Your task to perform on an android device: turn on location history Image 0: 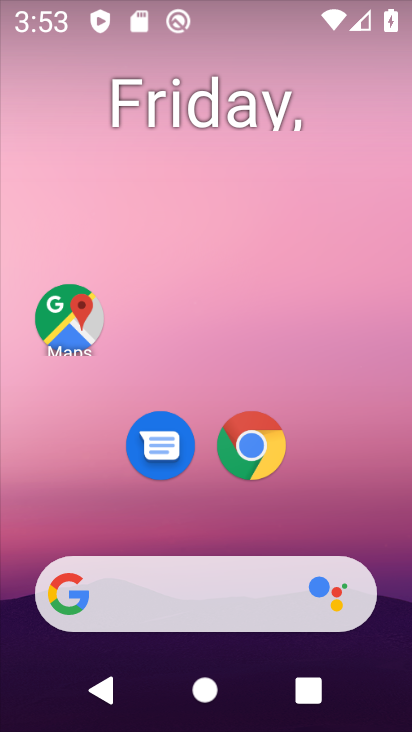
Step 0: press home button
Your task to perform on an android device: turn on location history Image 1: 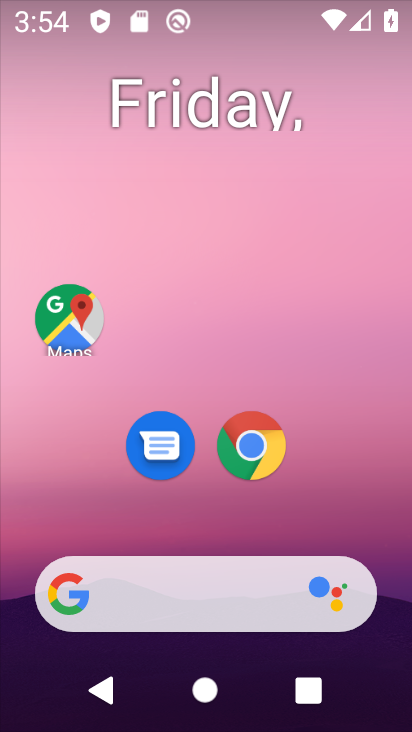
Step 1: drag from (366, 416) to (346, 185)
Your task to perform on an android device: turn on location history Image 2: 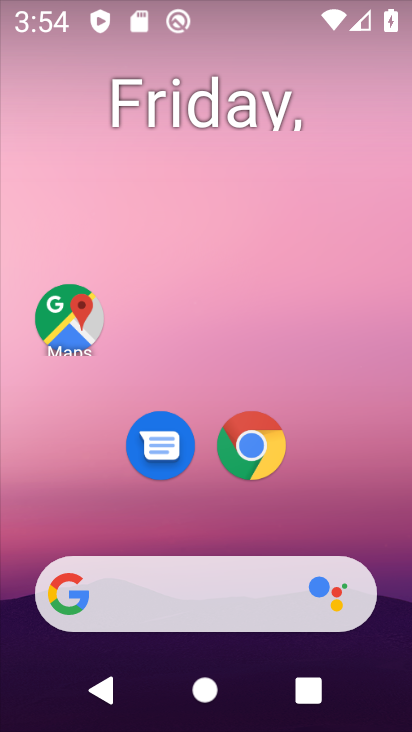
Step 2: drag from (243, 518) to (243, 202)
Your task to perform on an android device: turn on location history Image 3: 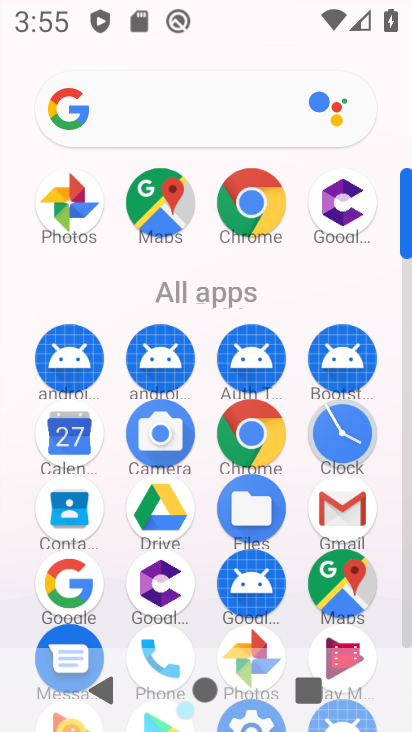
Step 3: drag from (402, 545) to (406, 255)
Your task to perform on an android device: turn on location history Image 4: 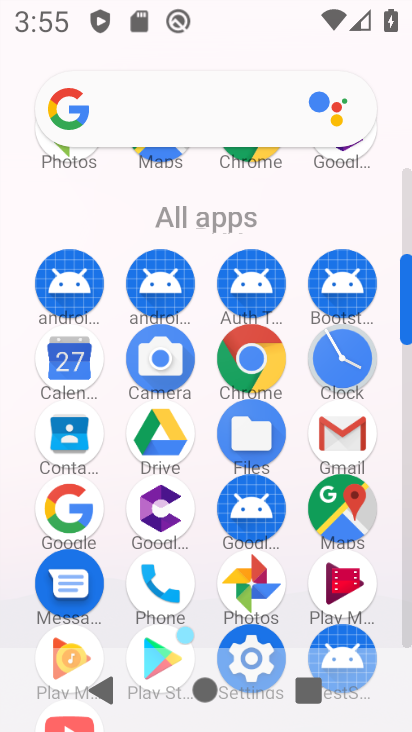
Step 4: click (254, 662)
Your task to perform on an android device: turn on location history Image 5: 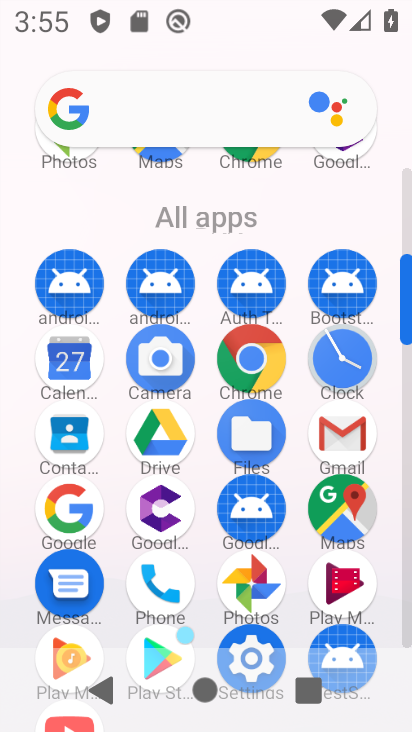
Step 5: click (253, 661)
Your task to perform on an android device: turn on location history Image 6: 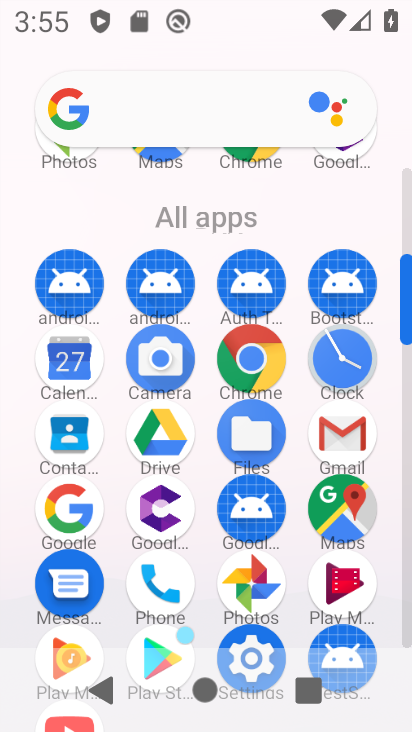
Step 6: click (247, 655)
Your task to perform on an android device: turn on location history Image 7: 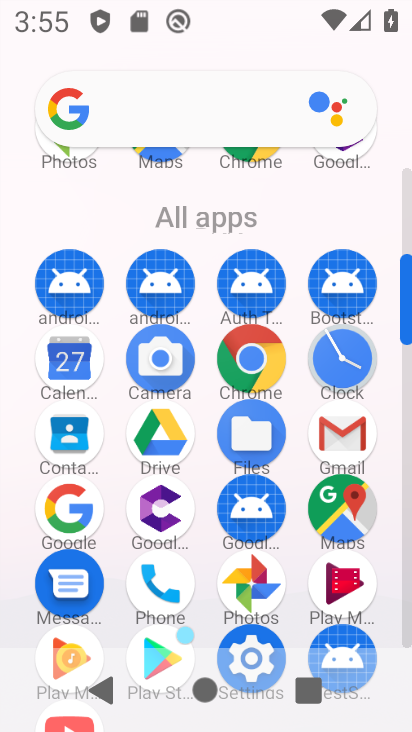
Step 7: drag from (383, 572) to (268, 487)
Your task to perform on an android device: turn on location history Image 8: 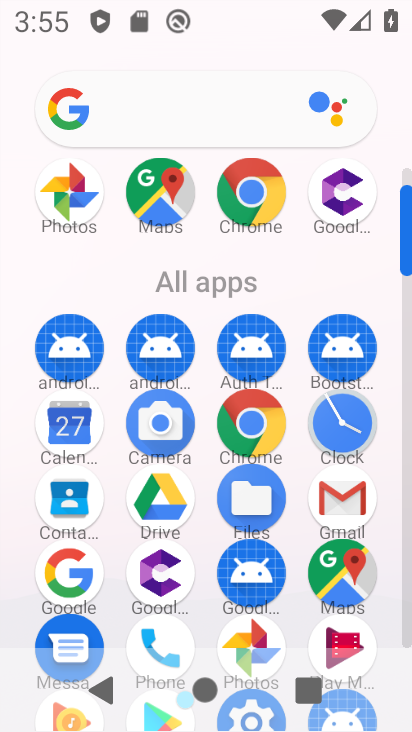
Step 8: click (252, 521)
Your task to perform on an android device: turn on location history Image 9: 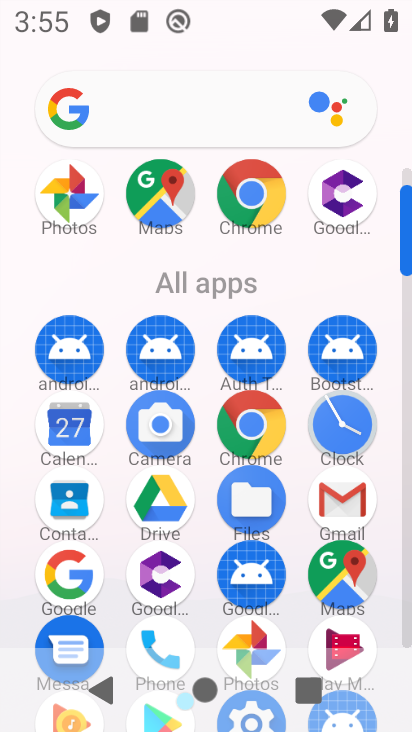
Step 9: drag from (390, 593) to (390, 150)
Your task to perform on an android device: turn on location history Image 10: 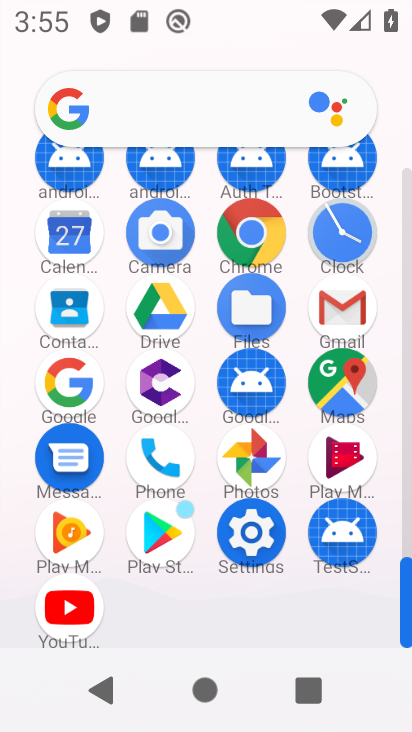
Step 10: click (245, 520)
Your task to perform on an android device: turn on location history Image 11: 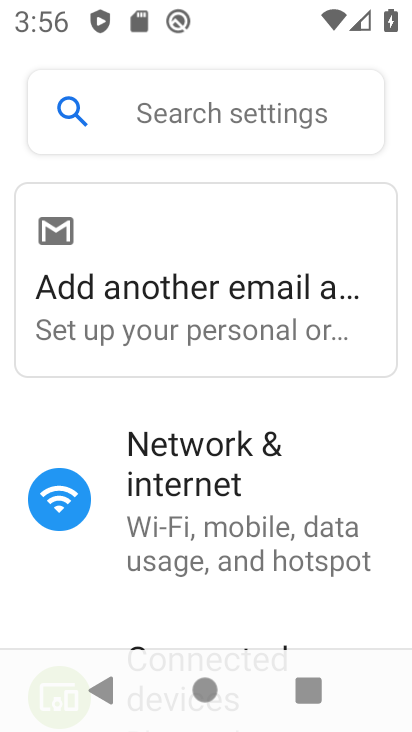
Step 11: drag from (335, 458) to (335, 112)
Your task to perform on an android device: turn on location history Image 12: 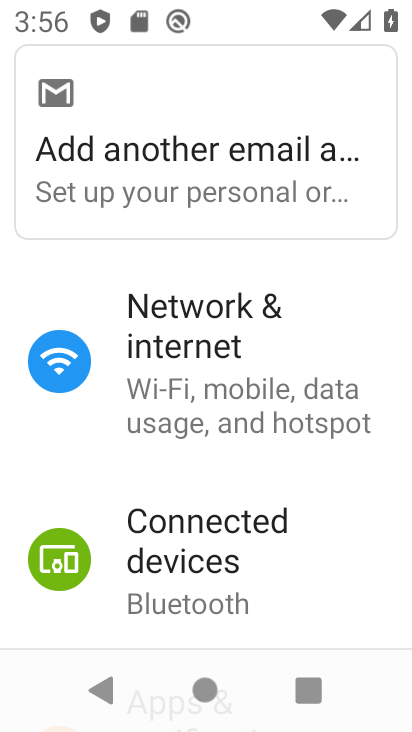
Step 12: drag from (306, 541) to (279, 151)
Your task to perform on an android device: turn on location history Image 13: 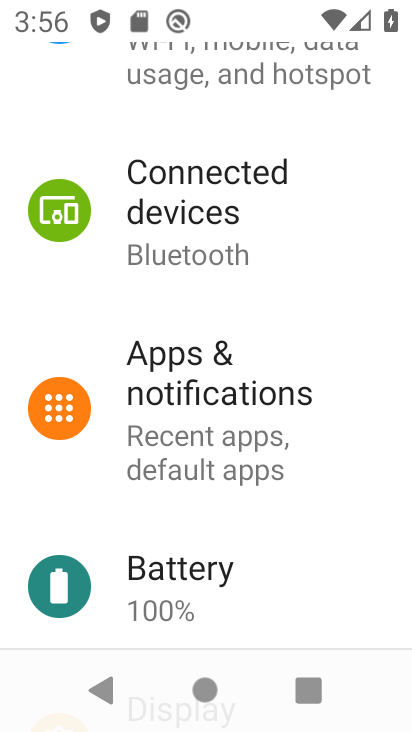
Step 13: drag from (311, 554) to (314, 207)
Your task to perform on an android device: turn on location history Image 14: 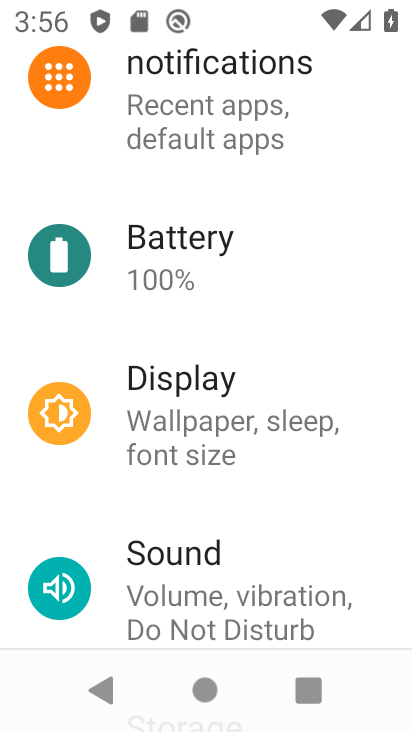
Step 14: drag from (314, 252) to (315, 199)
Your task to perform on an android device: turn on location history Image 15: 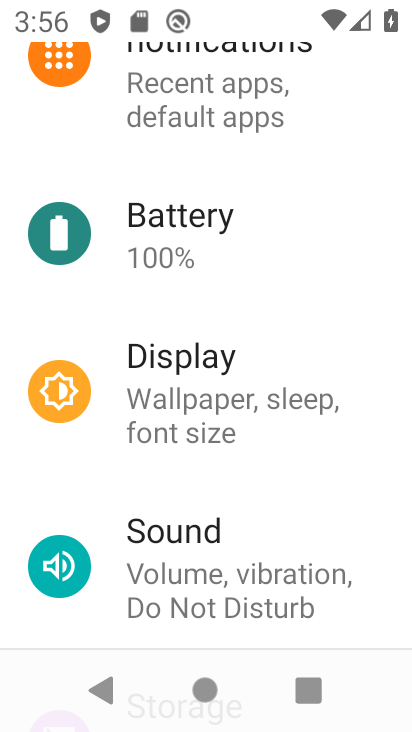
Step 15: drag from (273, 482) to (272, 185)
Your task to perform on an android device: turn on location history Image 16: 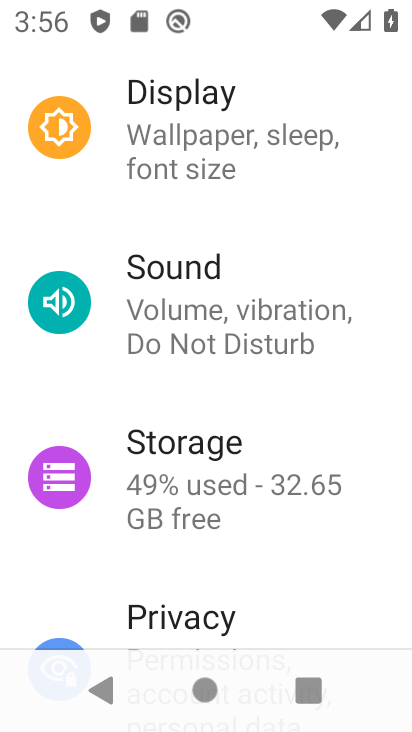
Step 16: drag from (328, 549) to (330, 130)
Your task to perform on an android device: turn on location history Image 17: 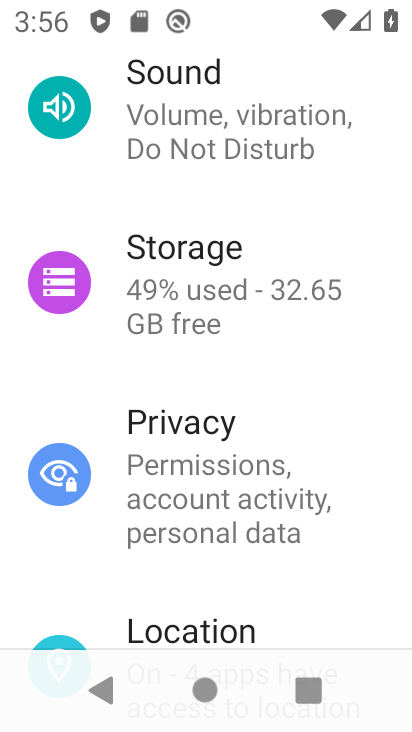
Step 17: click (190, 634)
Your task to perform on an android device: turn on location history Image 18: 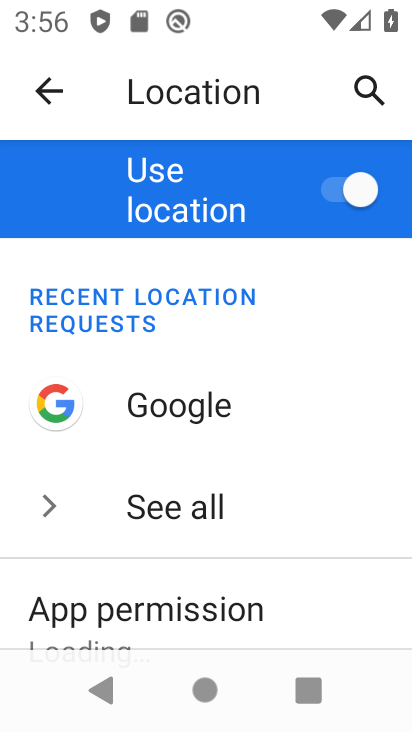
Step 18: drag from (336, 450) to (323, 135)
Your task to perform on an android device: turn on location history Image 19: 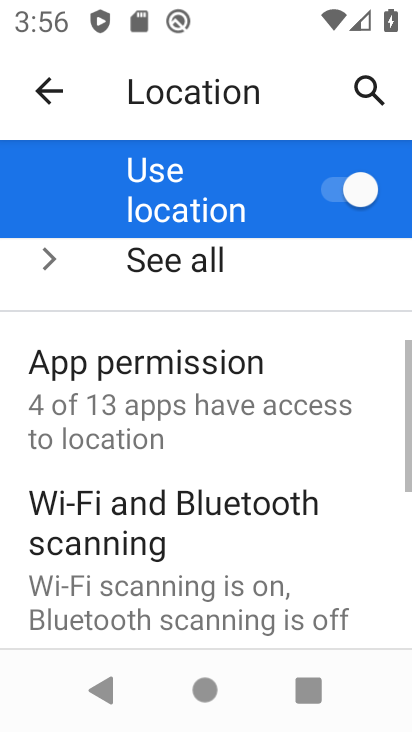
Step 19: drag from (304, 431) to (306, 101)
Your task to perform on an android device: turn on location history Image 20: 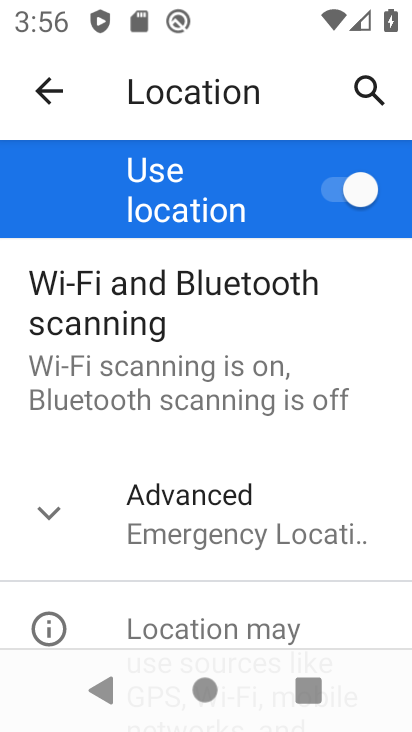
Step 20: click (196, 509)
Your task to perform on an android device: turn on location history Image 21: 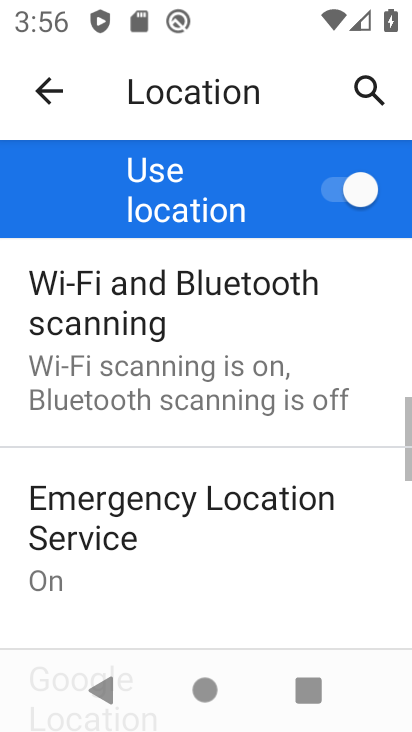
Step 21: drag from (315, 558) to (296, 215)
Your task to perform on an android device: turn on location history Image 22: 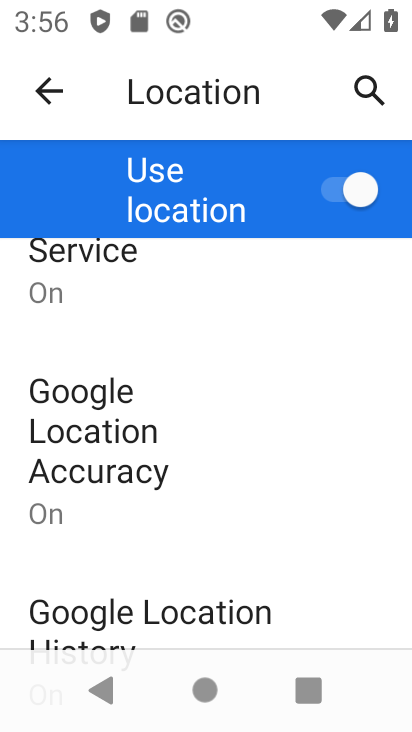
Step 22: click (189, 622)
Your task to perform on an android device: turn on location history Image 23: 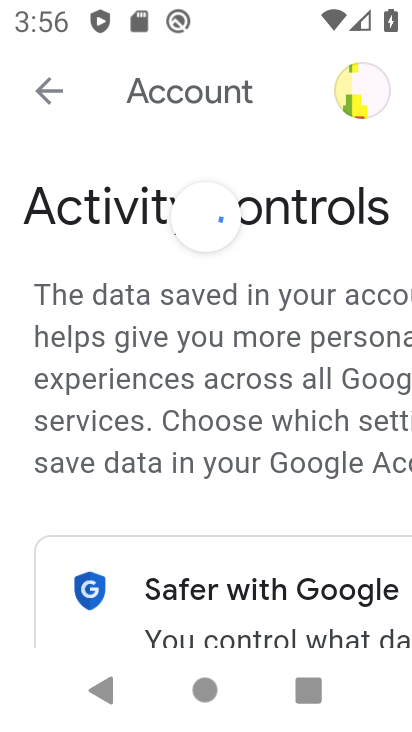
Step 23: task complete